Your task to perform on an android device: Open Reddit.com Image 0: 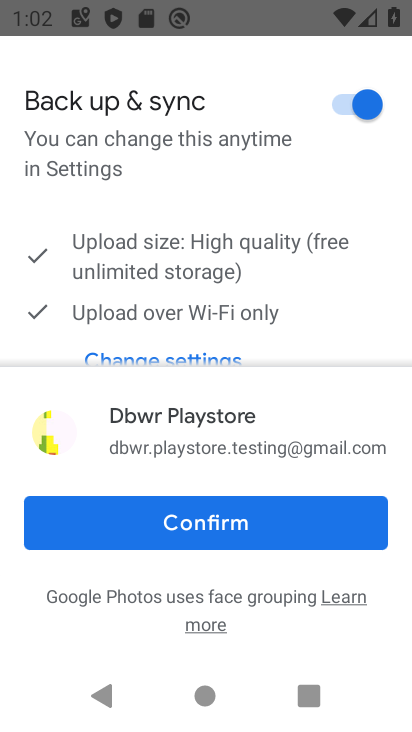
Step 0: press home button
Your task to perform on an android device: Open Reddit.com Image 1: 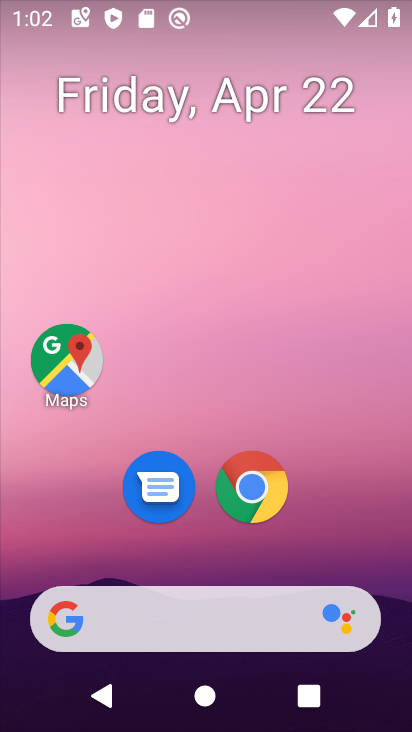
Step 1: click (267, 500)
Your task to perform on an android device: Open Reddit.com Image 2: 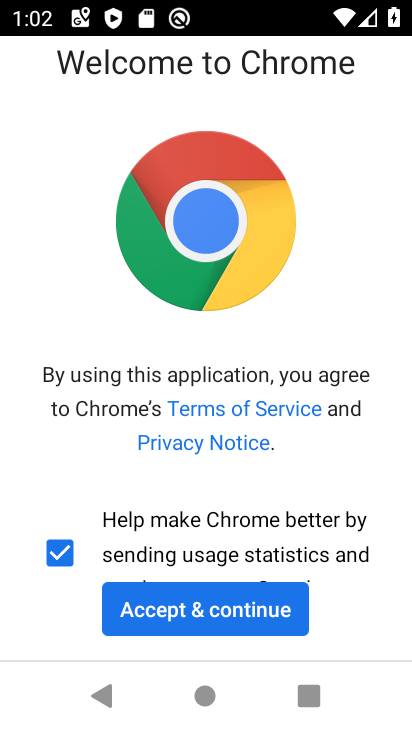
Step 2: click (200, 623)
Your task to perform on an android device: Open Reddit.com Image 3: 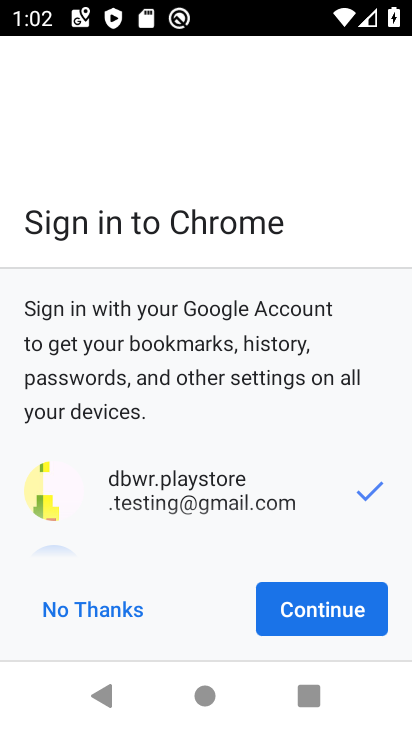
Step 3: click (283, 601)
Your task to perform on an android device: Open Reddit.com Image 4: 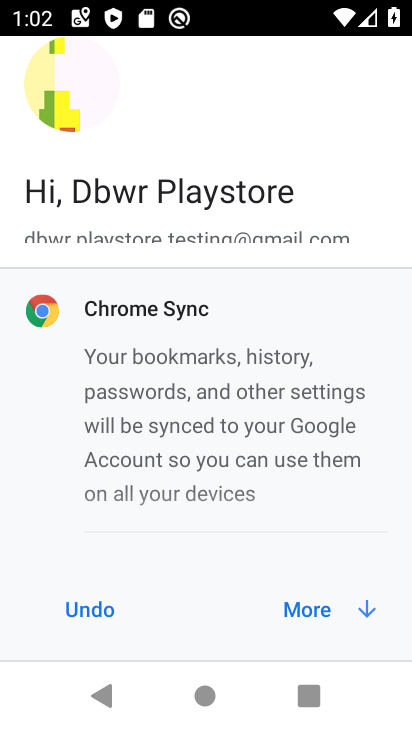
Step 4: click (351, 615)
Your task to perform on an android device: Open Reddit.com Image 5: 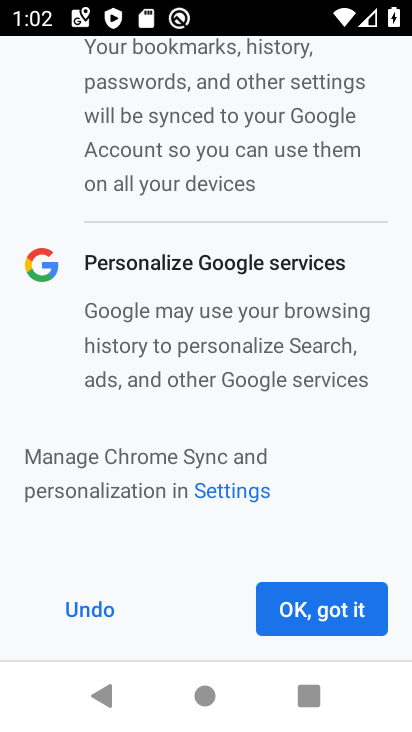
Step 5: click (351, 615)
Your task to perform on an android device: Open Reddit.com Image 6: 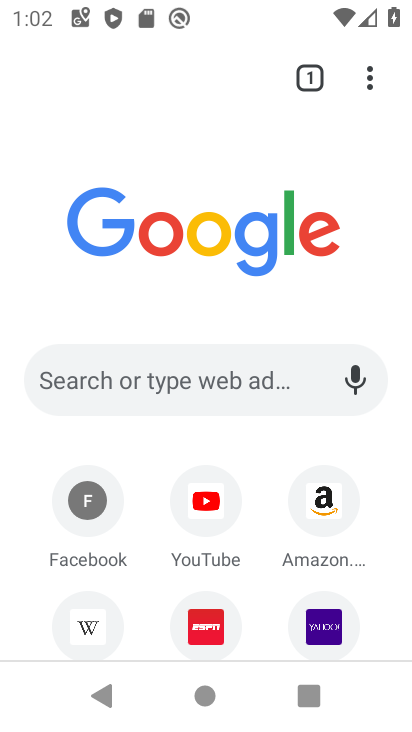
Step 6: click (195, 367)
Your task to perform on an android device: Open Reddit.com Image 7: 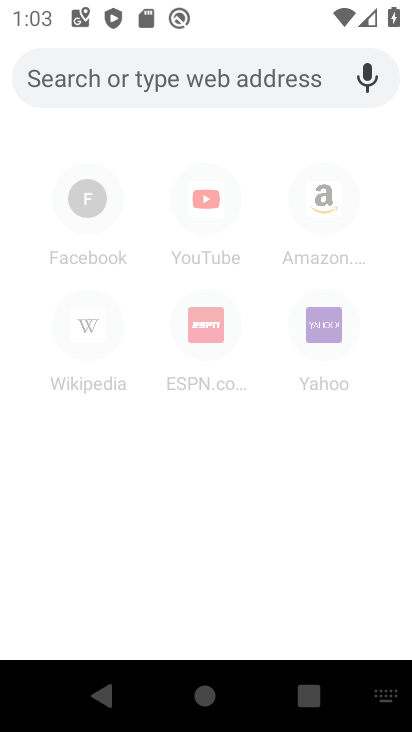
Step 7: type "Reddit.com"
Your task to perform on an android device: Open Reddit.com Image 8: 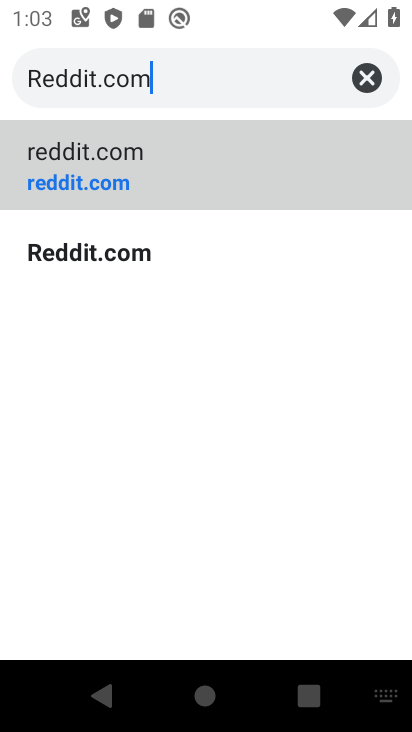
Step 8: type ""
Your task to perform on an android device: Open Reddit.com Image 9: 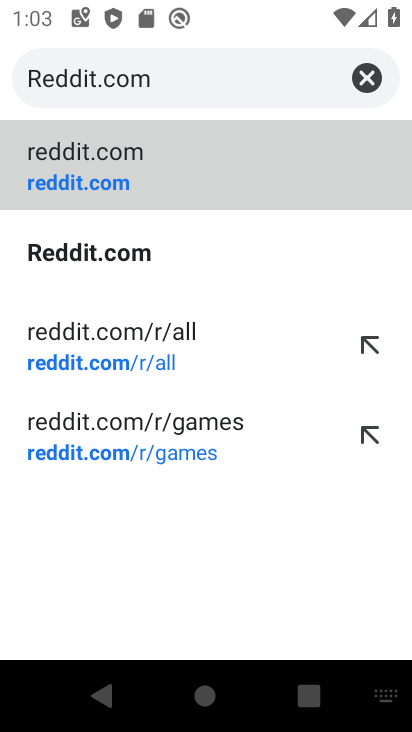
Step 9: click (80, 254)
Your task to perform on an android device: Open Reddit.com Image 10: 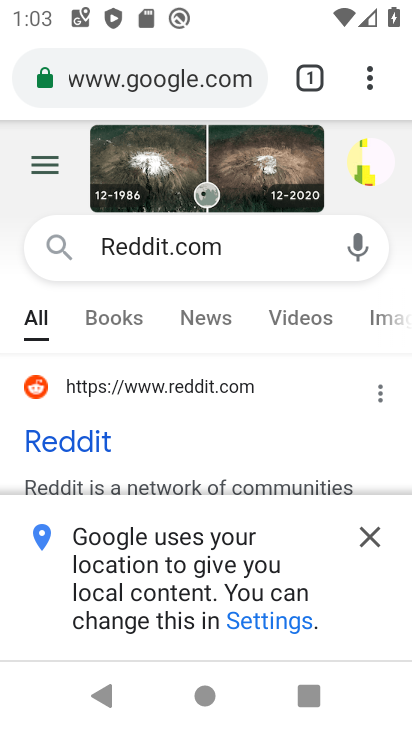
Step 10: click (58, 442)
Your task to perform on an android device: Open Reddit.com Image 11: 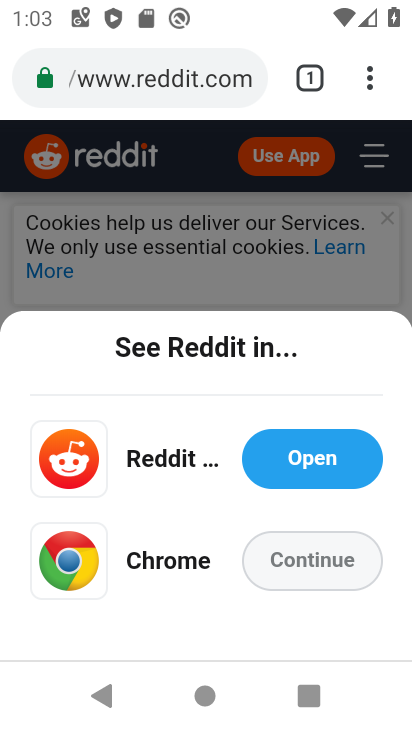
Step 11: task complete